Your task to perform on an android device: uninstall "Pandora - Music & Podcasts" Image 0: 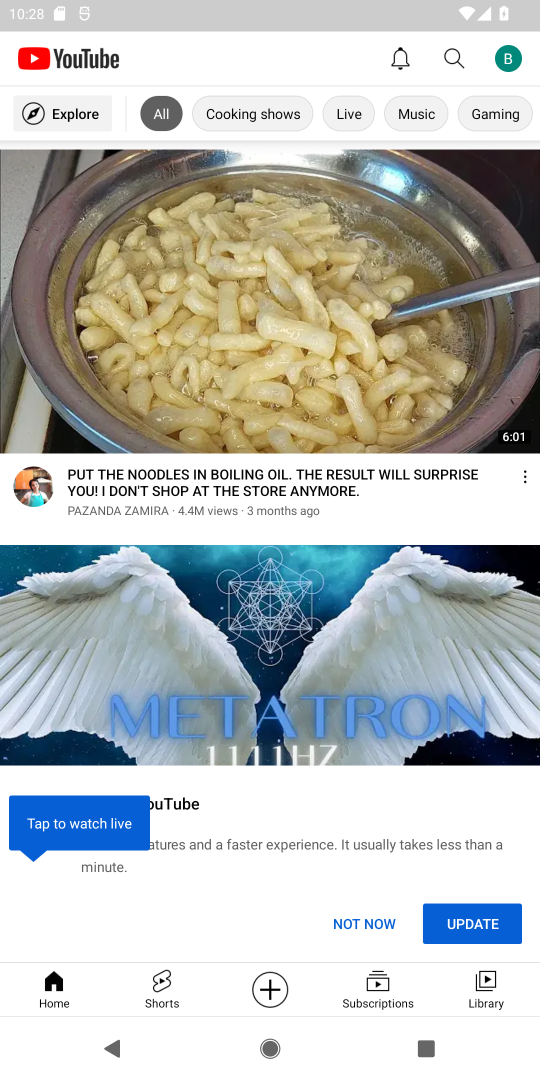
Step 0: press home button
Your task to perform on an android device: uninstall "Pandora - Music & Podcasts" Image 1: 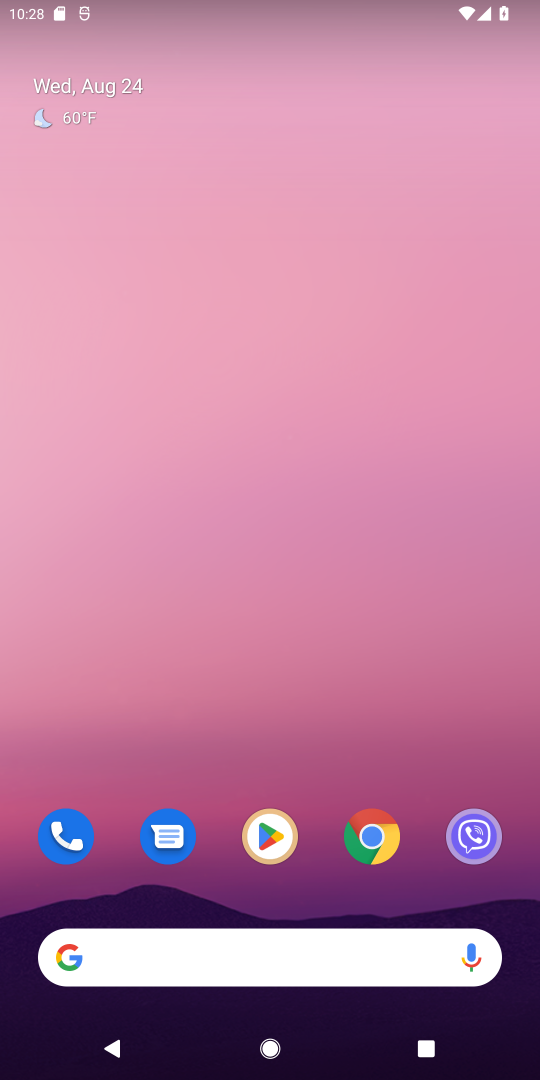
Step 1: click (266, 839)
Your task to perform on an android device: uninstall "Pandora - Music & Podcasts" Image 2: 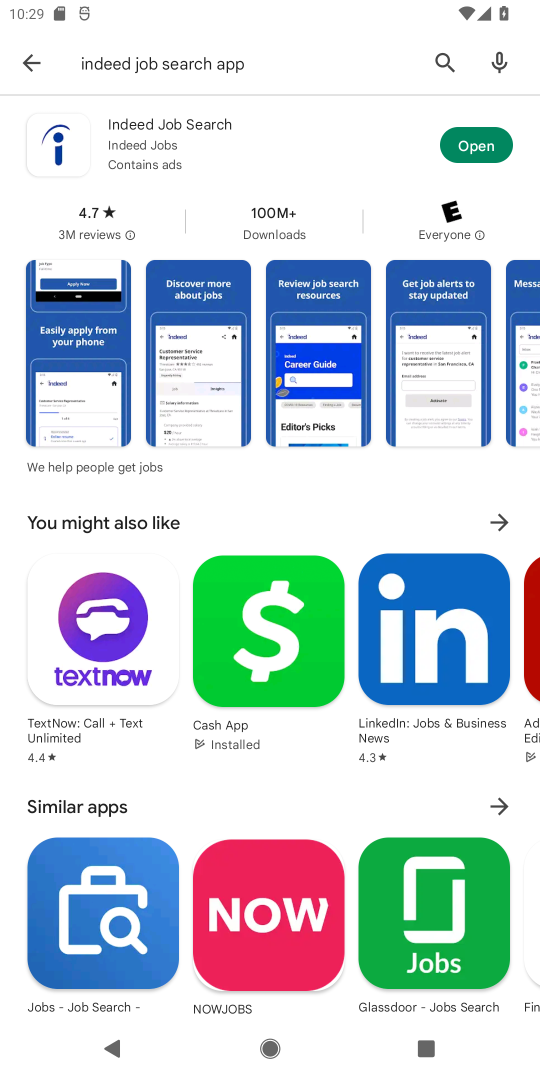
Step 2: click (439, 69)
Your task to perform on an android device: uninstall "Pandora - Music & Podcasts" Image 3: 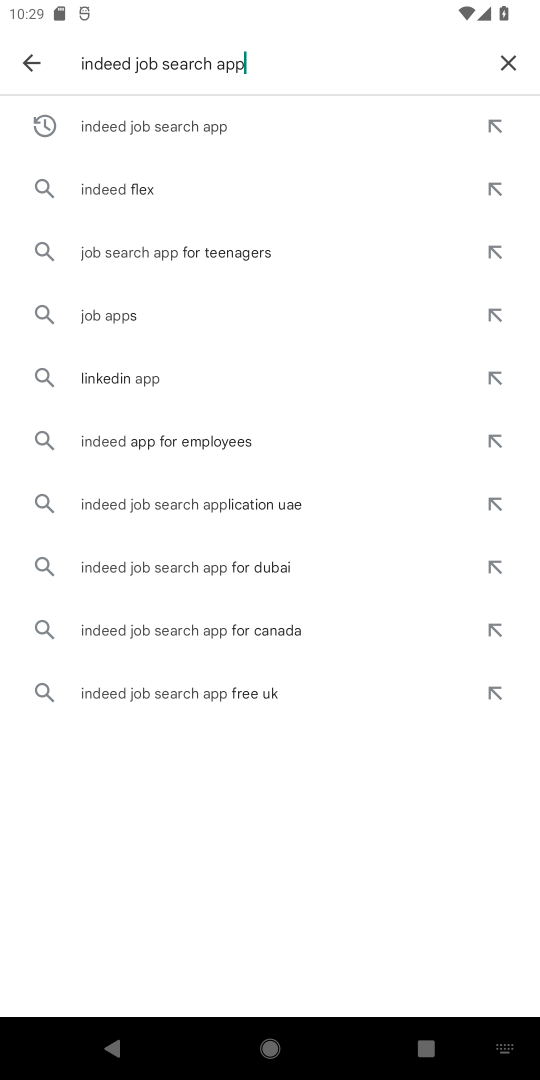
Step 3: click (509, 72)
Your task to perform on an android device: uninstall "Pandora - Music & Podcasts" Image 4: 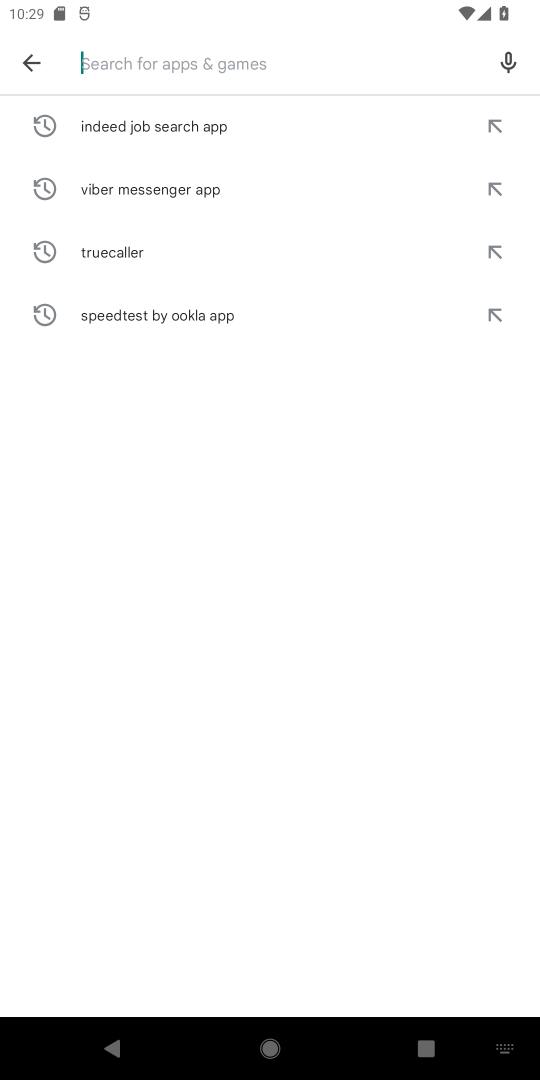
Step 4: type "Pandora - Music & Podcast"
Your task to perform on an android device: uninstall "Pandora - Music & Podcasts" Image 5: 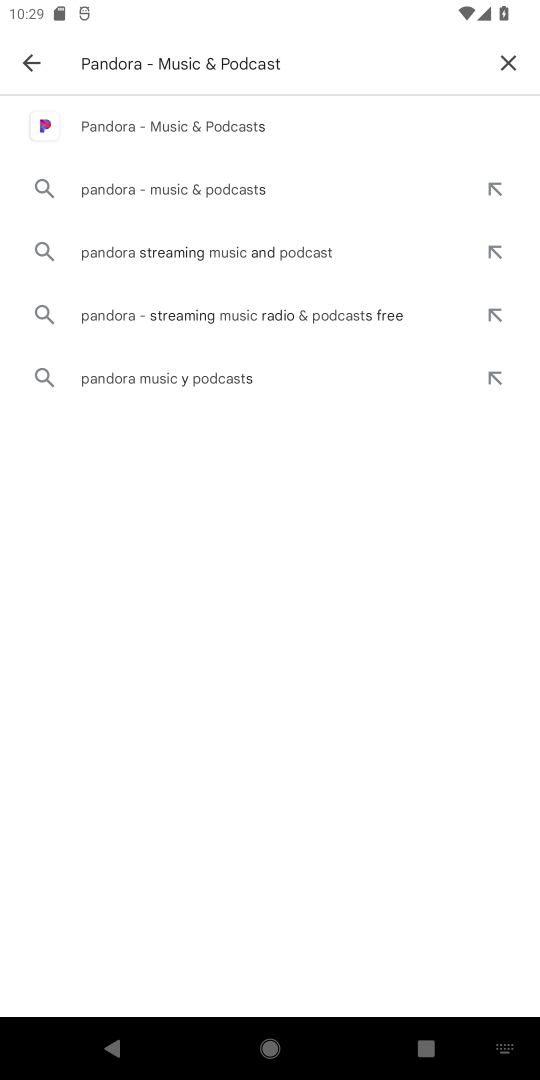
Step 5: click (186, 128)
Your task to perform on an android device: uninstall "Pandora - Music & Podcasts" Image 6: 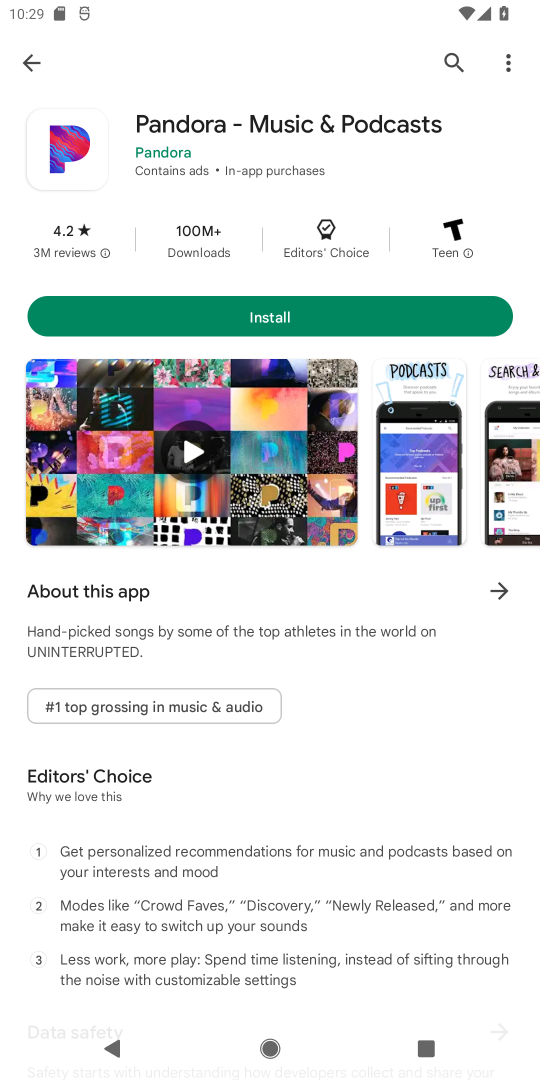
Step 6: task complete